Your task to perform on an android device: turn on priority inbox in the gmail app Image 0: 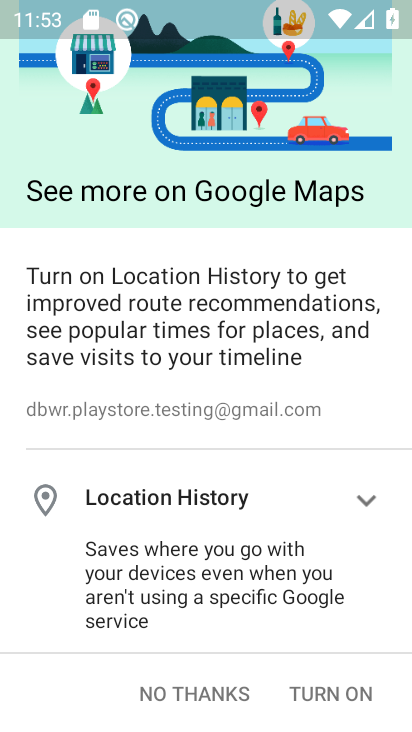
Step 0: press home button
Your task to perform on an android device: turn on priority inbox in the gmail app Image 1: 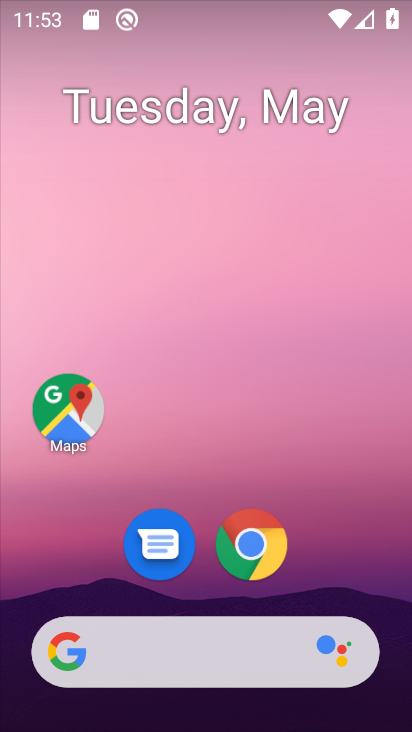
Step 1: drag from (213, 551) to (226, 226)
Your task to perform on an android device: turn on priority inbox in the gmail app Image 2: 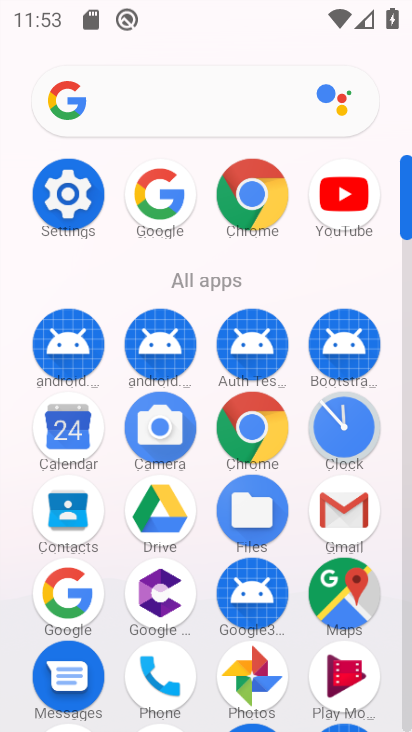
Step 2: click (343, 573)
Your task to perform on an android device: turn on priority inbox in the gmail app Image 3: 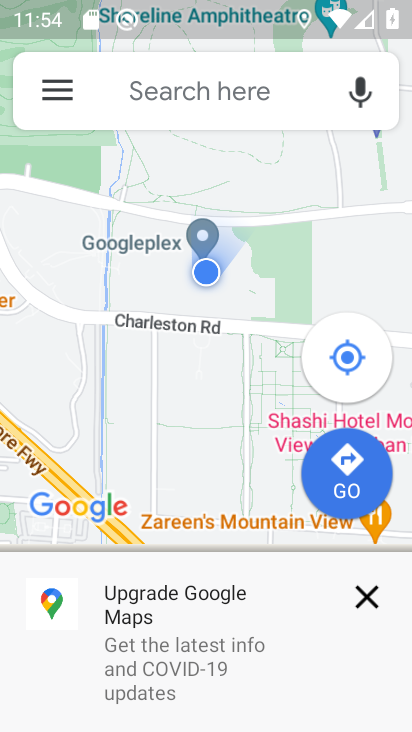
Step 3: press home button
Your task to perform on an android device: turn on priority inbox in the gmail app Image 4: 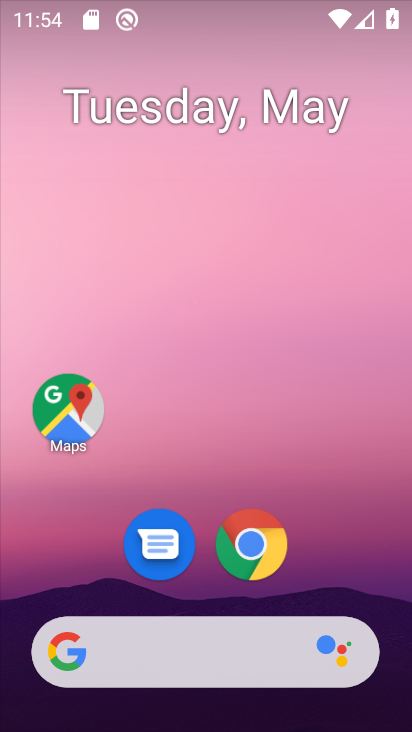
Step 4: drag from (199, 218) to (206, 175)
Your task to perform on an android device: turn on priority inbox in the gmail app Image 5: 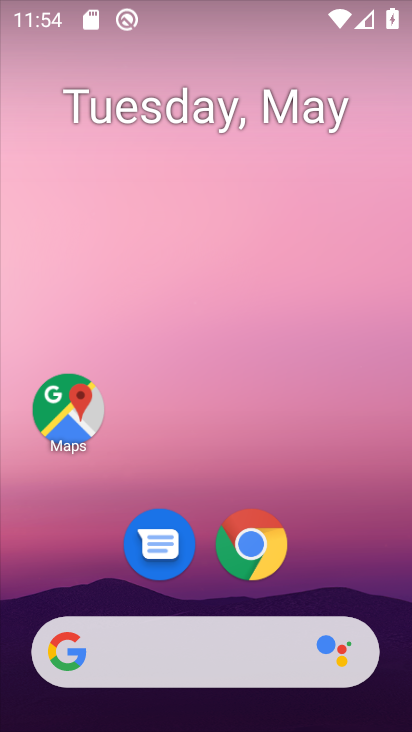
Step 5: drag from (203, 50) to (203, 0)
Your task to perform on an android device: turn on priority inbox in the gmail app Image 6: 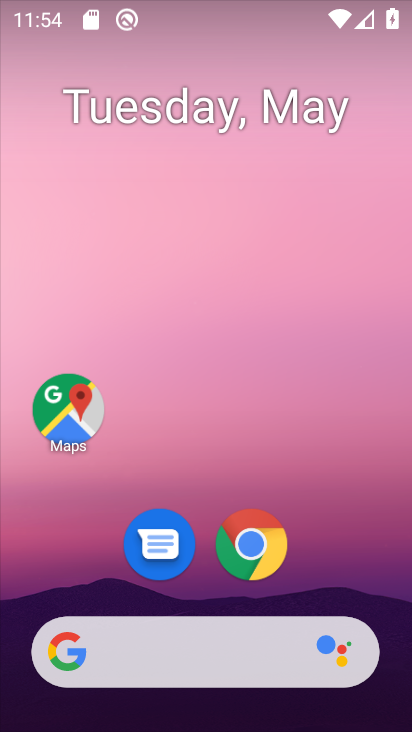
Step 6: drag from (202, 492) to (247, 50)
Your task to perform on an android device: turn on priority inbox in the gmail app Image 7: 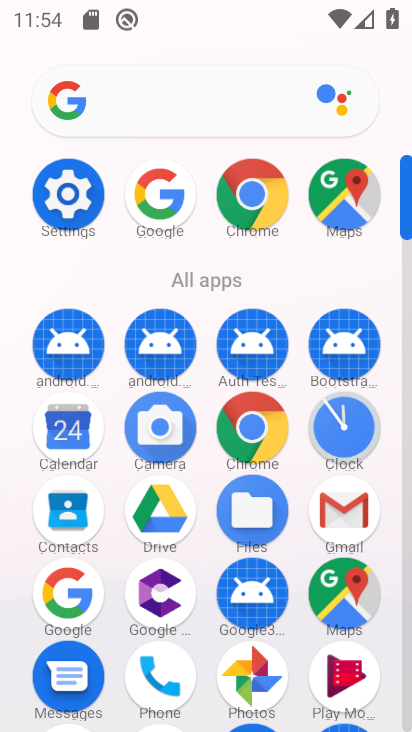
Step 7: click (330, 525)
Your task to perform on an android device: turn on priority inbox in the gmail app Image 8: 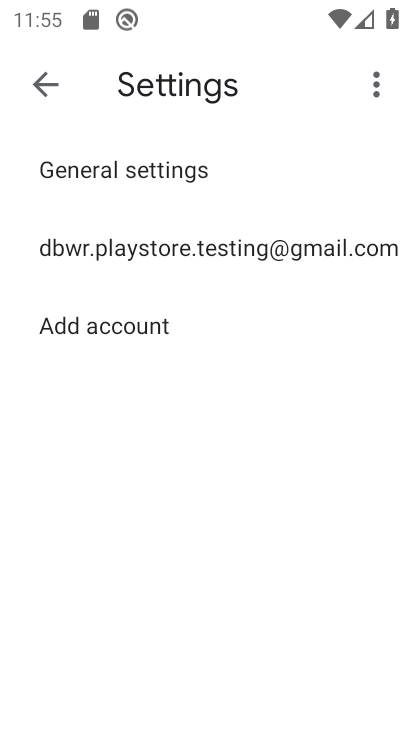
Step 8: click (204, 257)
Your task to perform on an android device: turn on priority inbox in the gmail app Image 9: 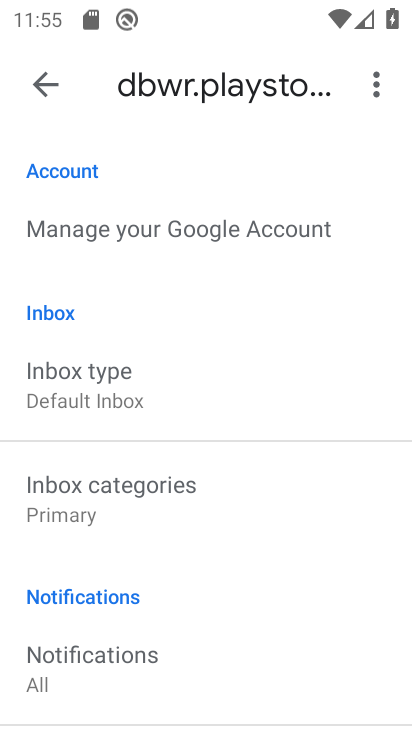
Step 9: click (158, 408)
Your task to perform on an android device: turn on priority inbox in the gmail app Image 10: 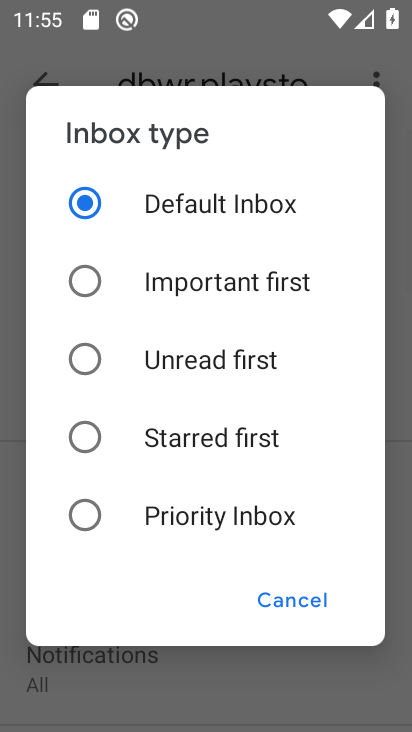
Step 10: click (119, 517)
Your task to perform on an android device: turn on priority inbox in the gmail app Image 11: 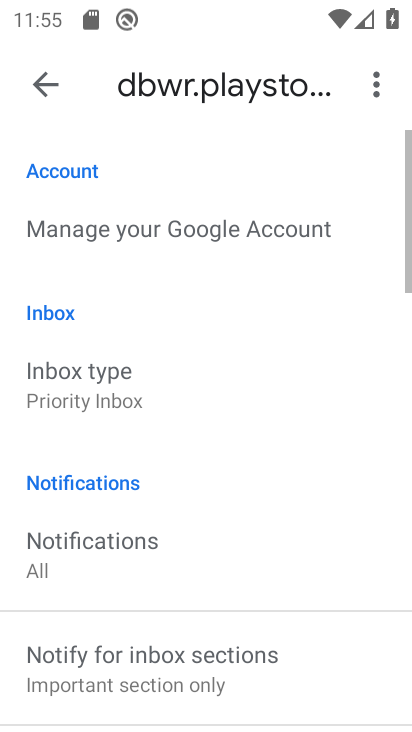
Step 11: task complete